Your task to perform on an android device: Open calendar and show me the second week of next month Image 0: 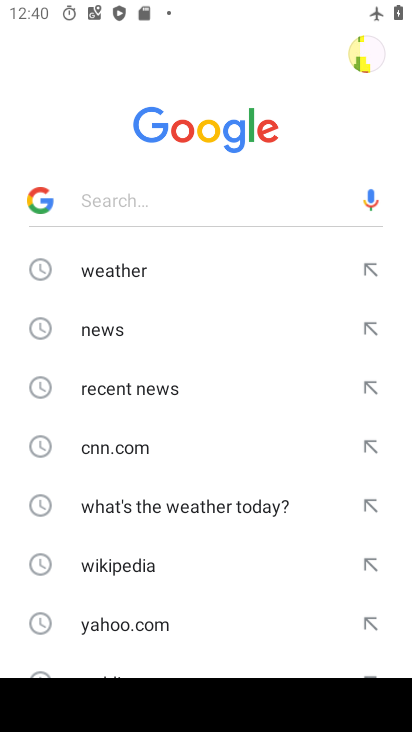
Step 0: press home button
Your task to perform on an android device: Open calendar and show me the second week of next month Image 1: 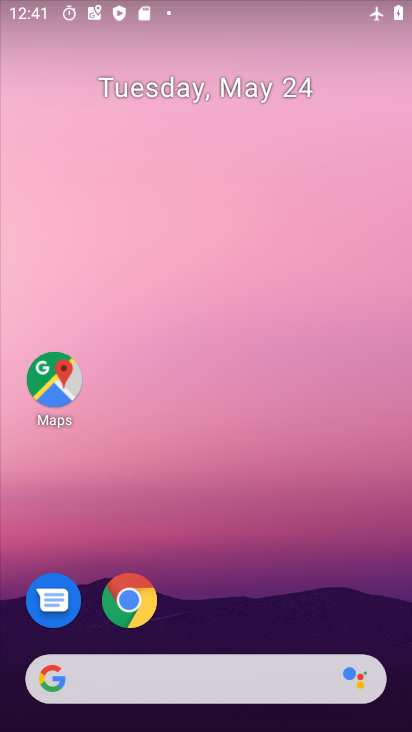
Step 1: drag from (308, 572) to (317, 149)
Your task to perform on an android device: Open calendar and show me the second week of next month Image 2: 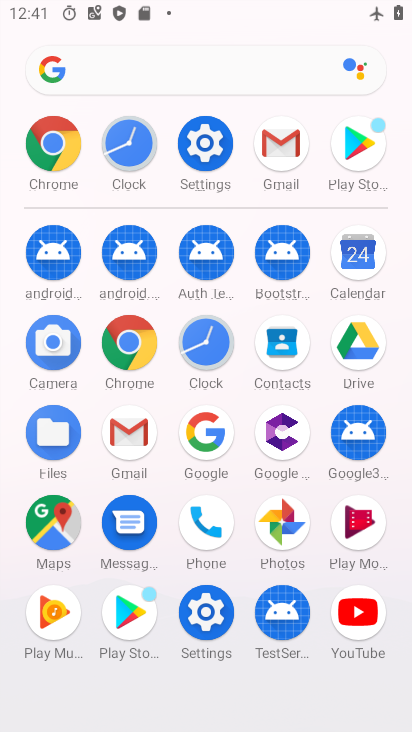
Step 2: click (345, 259)
Your task to perform on an android device: Open calendar and show me the second week of next month Image 3: 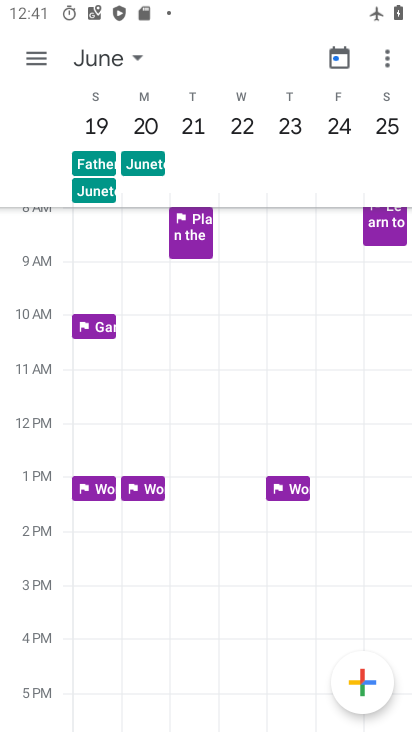
Step 3: drag from (343, 369) to (336, 252)
Your task to perform on an android device: Open calendar and show me the second week of next month Image 4: 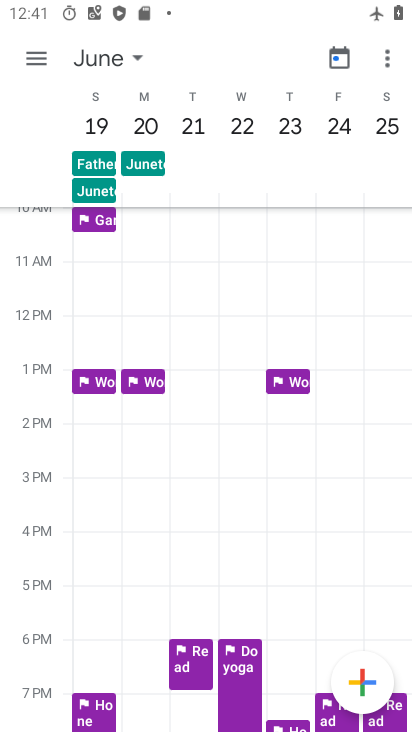
Step 4: click (131, 62)
Your task to perform on an android device: Open calendar and show me the second week of next month Image 5: 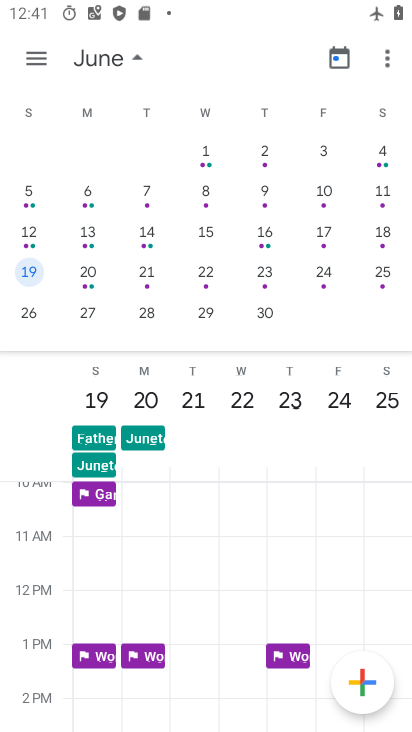
Step 5: click (32, 231)
Your task to perform on an android device: Open calendar and show me the second week of next month Image 6: 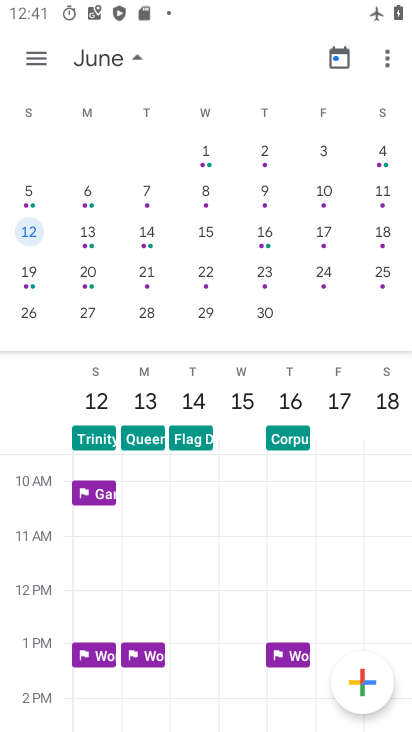
Step 6: task complete